Your task to perform on an android device: When is my next appointment? Image 0: 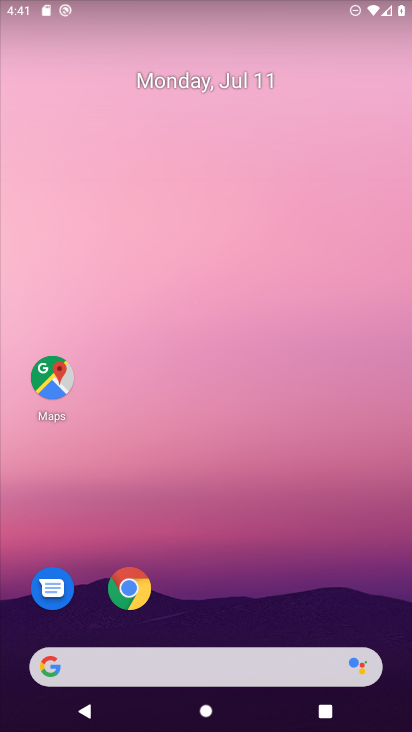
Step 0: press home button
Your task to perform on an android device: When is my next appointment? Image 1: 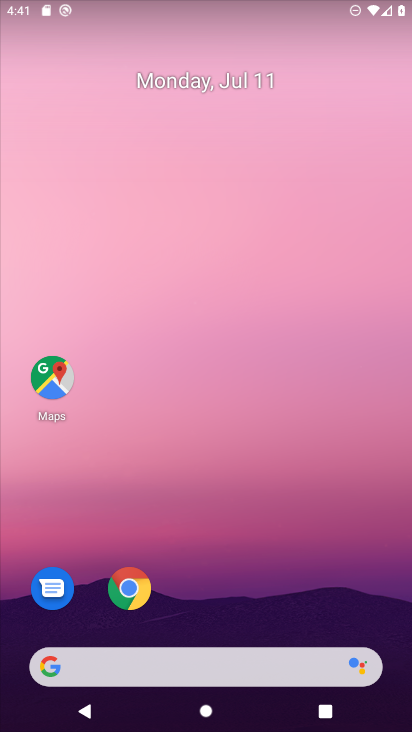
Step 1: drag from (229, 618) to (225, 11)
Your task to perform on an android device: When is my next appointment? Image 2: 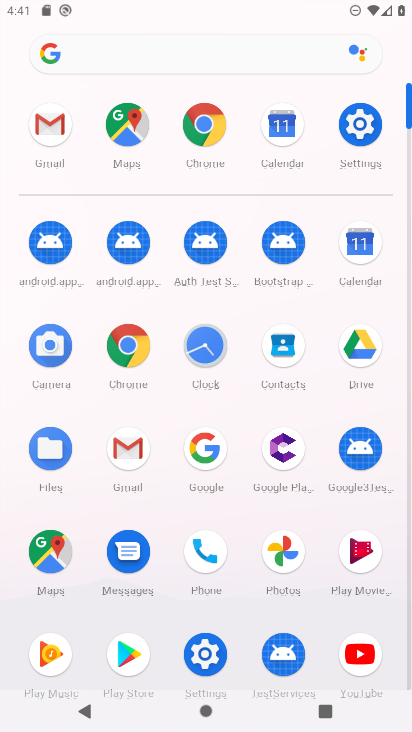
Step 2: click (362, 252)
Your task to perform on an android device: When is my next appointment? Image 3: 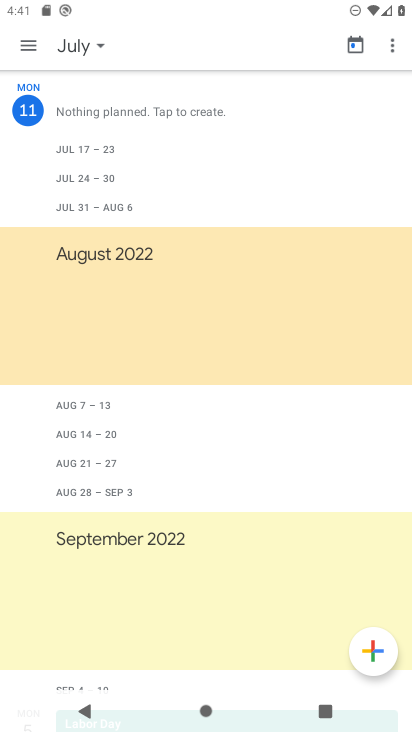
Step 3: click (32, 42)
Your task to perform on an android device: When is my next appointment? Image 4: 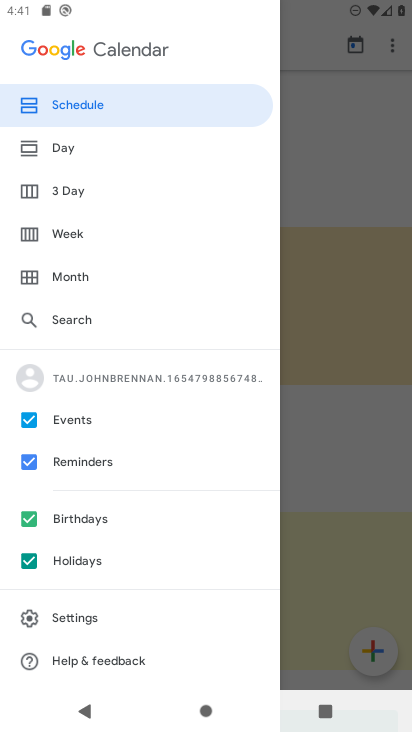
Step 4: click (103, 112)
Your task to perform on an android device: When is my next appointment? Image 5: 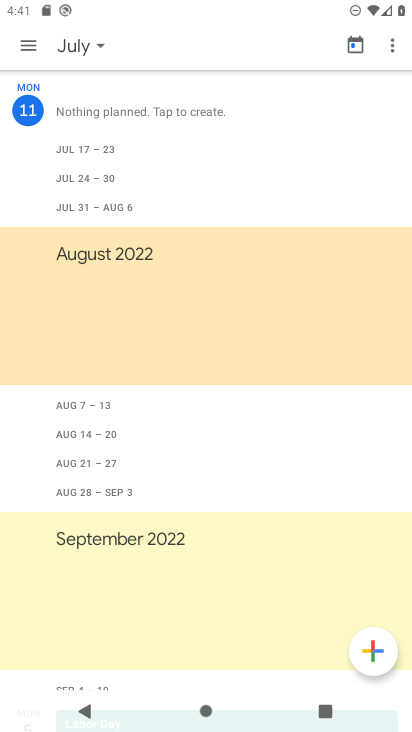
Step 5: task complete